Your task to perform on an android device: choose inbox layout in the gmail app Image 0: 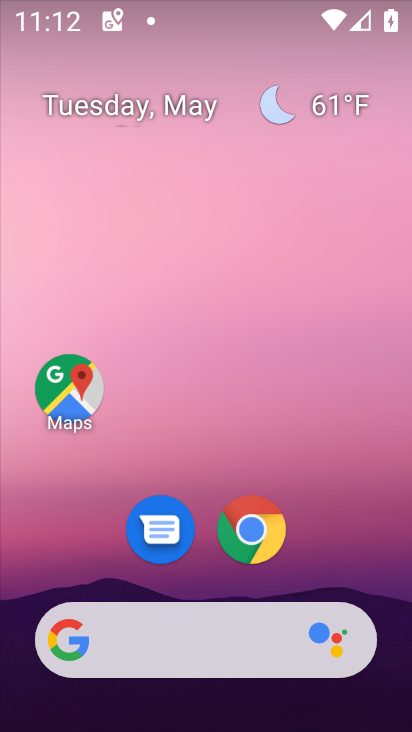
Step 0: drag from (321, 544) to (149, 165)
Your task to perform on an android device: choose inbox layout in the gmail app Image 1: 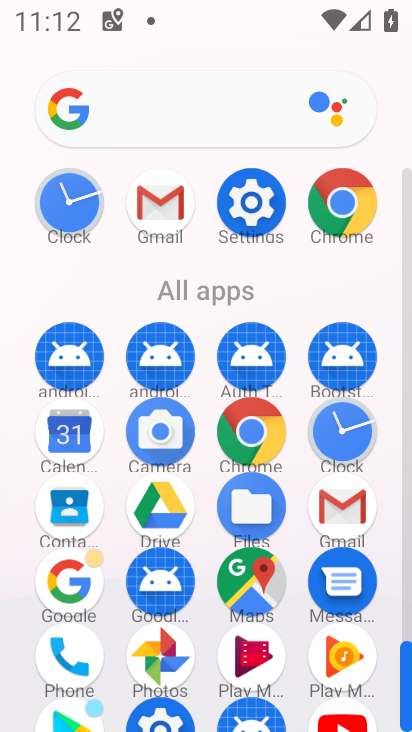
Step 1: click (349, 525)
Your task to perform on an android device: choose inbox layout in the gmail app Image 2: 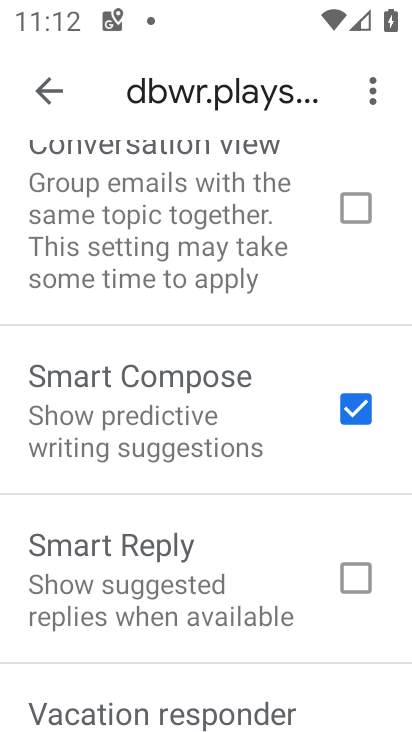
Step 2: click (41, 95)
Your task to perform on an android device: choose inbox layout in the gmail app Image 3: 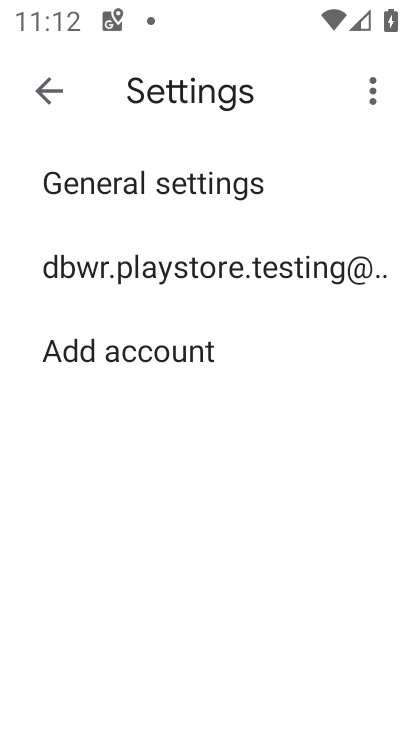
Step 3: click (88, 262)
Your task to perform on an android device: choose inbox layout in the gmail app Image 4: 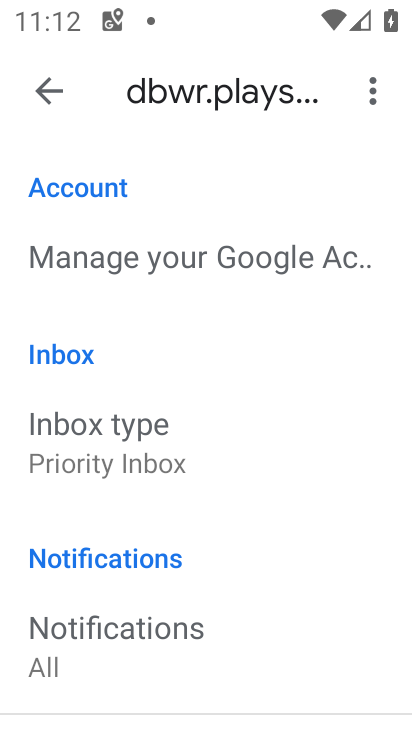
Step 4: click (166, 449)
Your task to perform on an android device: choose inbox layout in the gmail app Image 5: 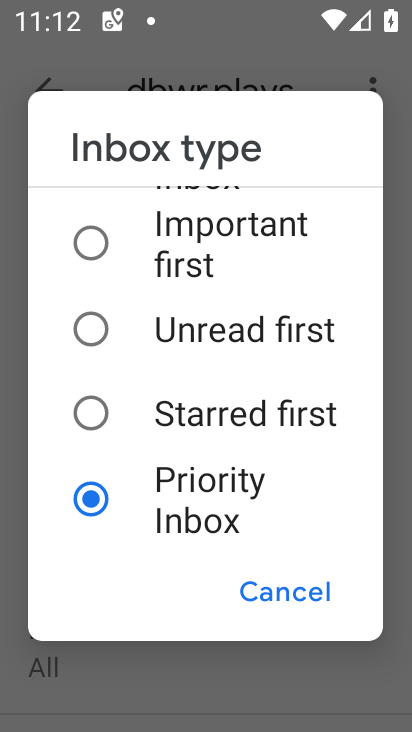
Step 5: drag from (251, 283) to (229, 527)
Your task to perform on an android device: choose inbox layout in the gmail app Image 6: 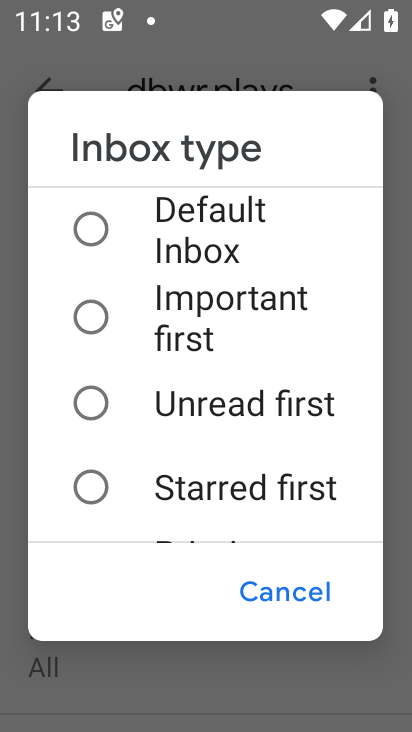
Step 6: click (186, 230)
Your task to perform on an android device: choose inbox layout in the gmail app Image 7: 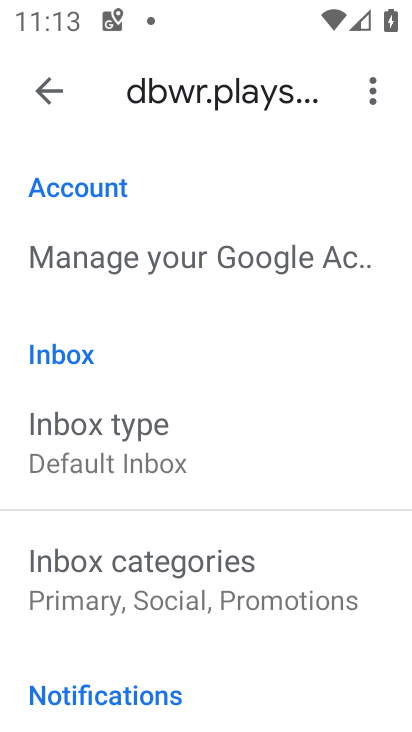
Step 7: click (131, 440)
Your task to perform on an android device: choose inbox layout in the gmail app Image 8: 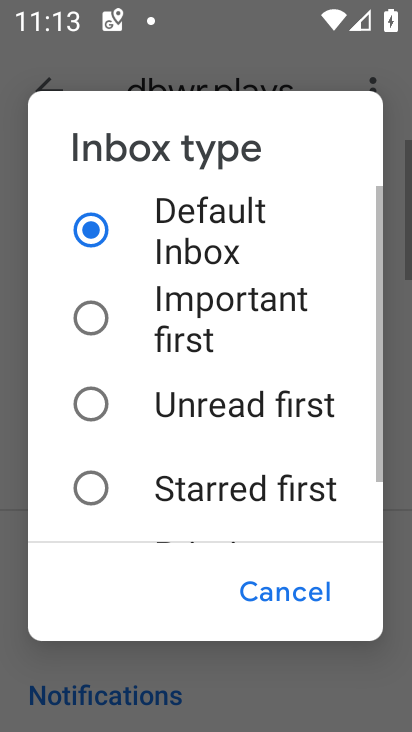
Step 8: drag from (147, 471) to (138, 245)
Your task to perform on an android device: choose inbox layout in the gmail app Image 9: 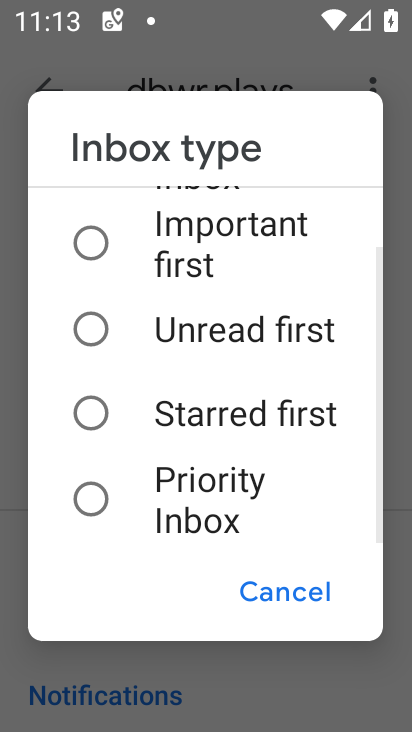
Step 9: click (179, 488)
Your task to perform on an android device: choose inbox layout in the gmail app Image 10: 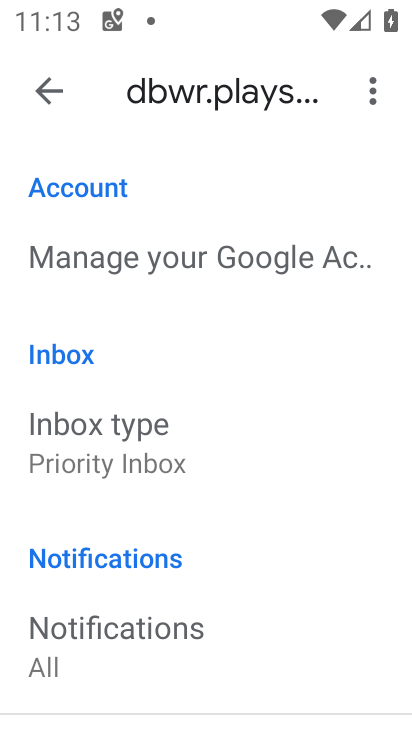
Step 10: click (49, 92)
Your task to perform on an android device: choose inbox layout in the gmail app Image 11: 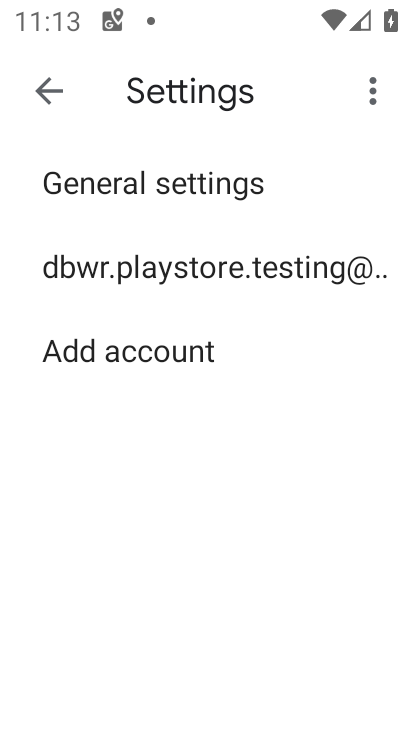
Step 11: click (49, 92)
Your task to perform on an android device: choose inbox layout in the gmail app Image 12: 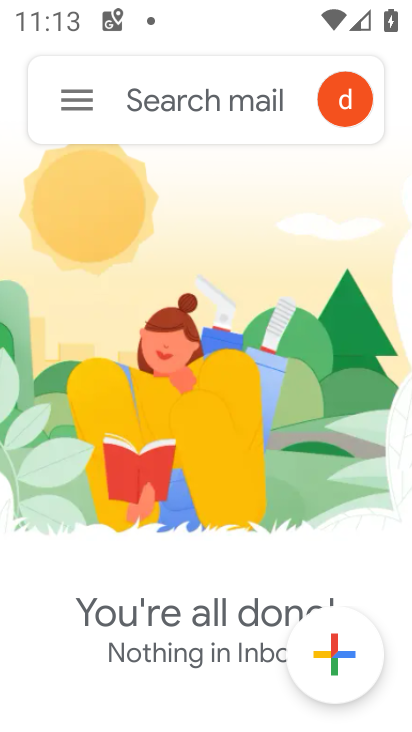
Step 12: click (64, 93)
Your task to perform on an android device: choose inbox layout in the gmail app Image 13: 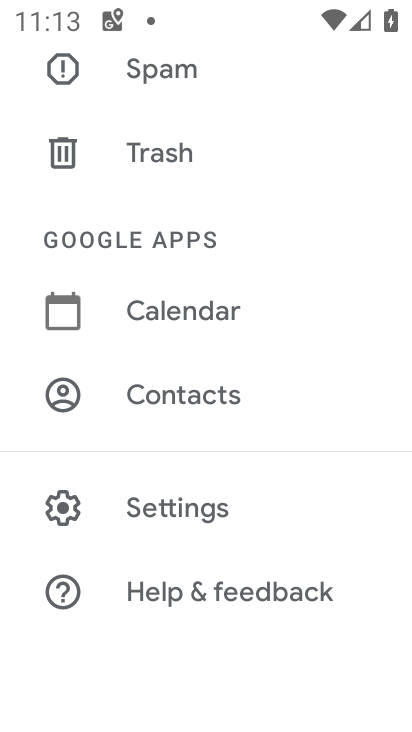
Step 13: task complete